Your task to perform on an android device: Go to wifi settings Image 0: 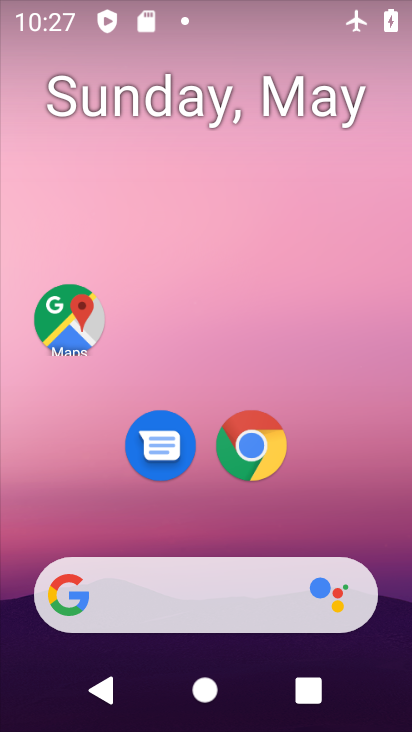
Step 0: drag from (196, 493) to (223, 220)
Your task to perform on an android device: Go to wifi settings Image 1: 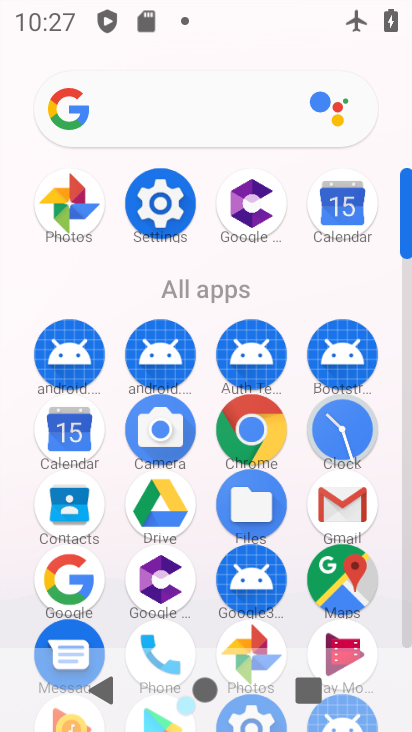
Step 1: click (157, 202)
Your task to perform on an android device: Go to wifi settings Image 2: 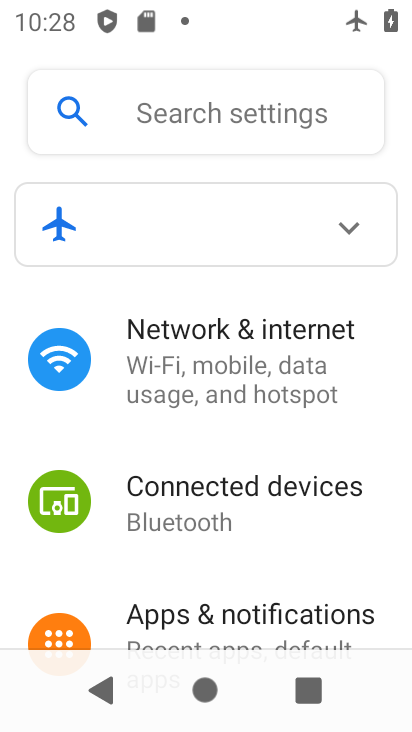
Step 2: click (286, 364)
Your task to perform on an android device: Go to wifi settings Image 3: 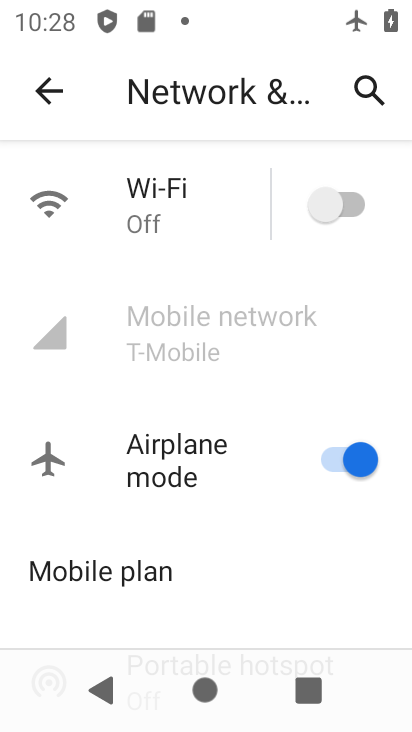
Step 3: click (199, 197)
Your task to perform on an android device: Go to wifi settings Image 4: 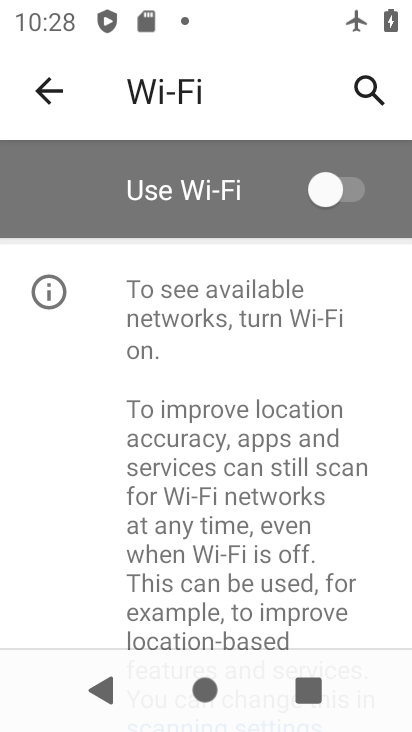
Step 4: task complete